Your task to perform on an android device: allow notifications from all sites in the chrome app Image 0: 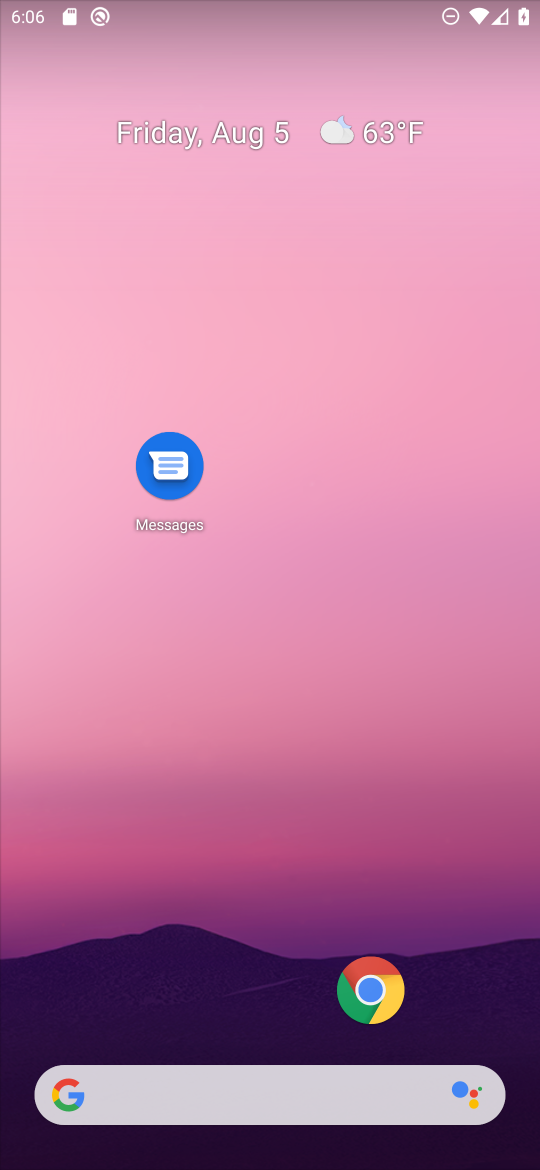
Step 0: click (362, 1003)
Your task to perform on an android device: allow notifications from all sites in the chrome app Image 1: 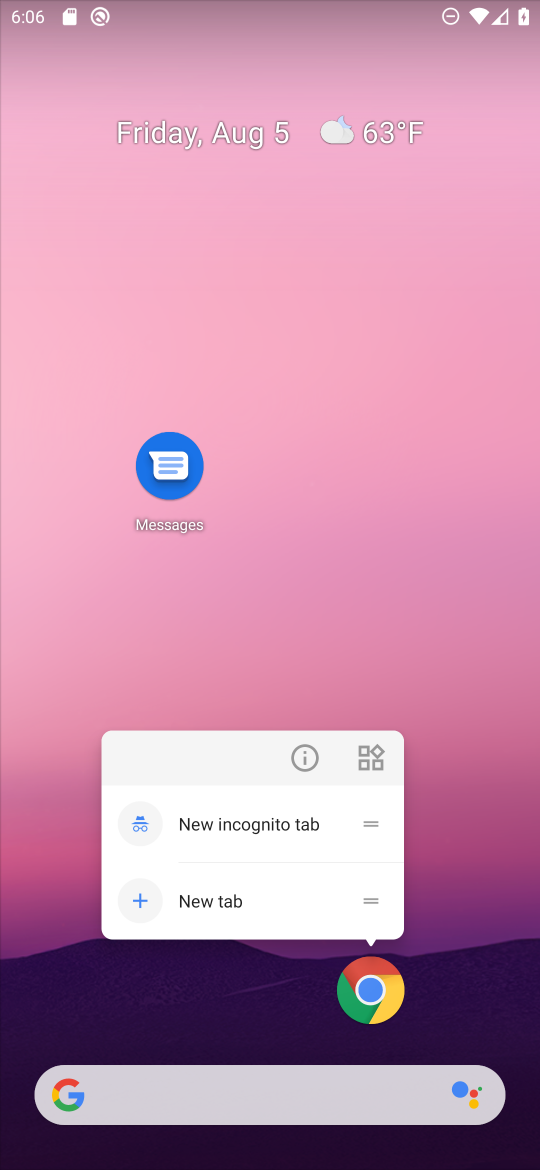
Step 1: click (367, 976)
Your task to perform on an android device: allow notifications from all sites in the chrome app Image 2: 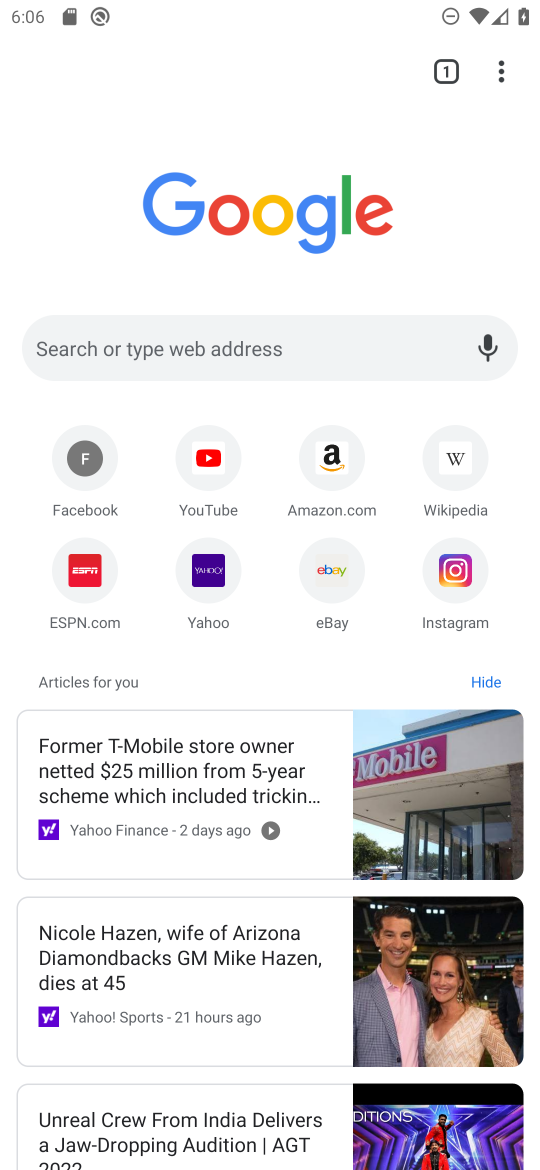
Step 2: click (512, 74)
Your task to perform on an android device: allow notifications from all sites in the chrome app Image 3: 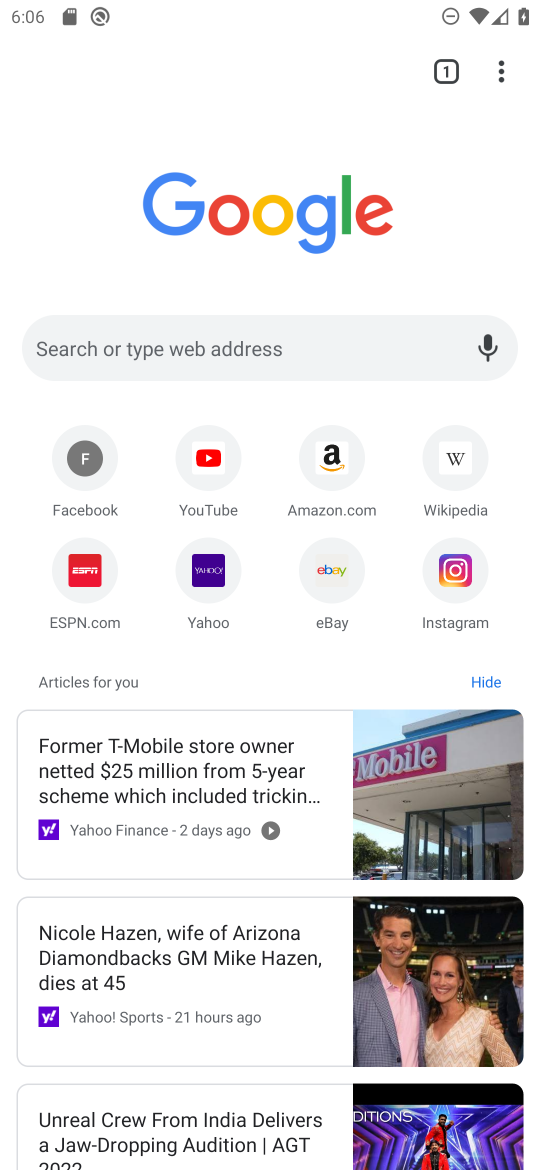
Step 3: click (499, 55)
Your task to perform on an android device: allow notifications from all sites in the chrome app Image 4: 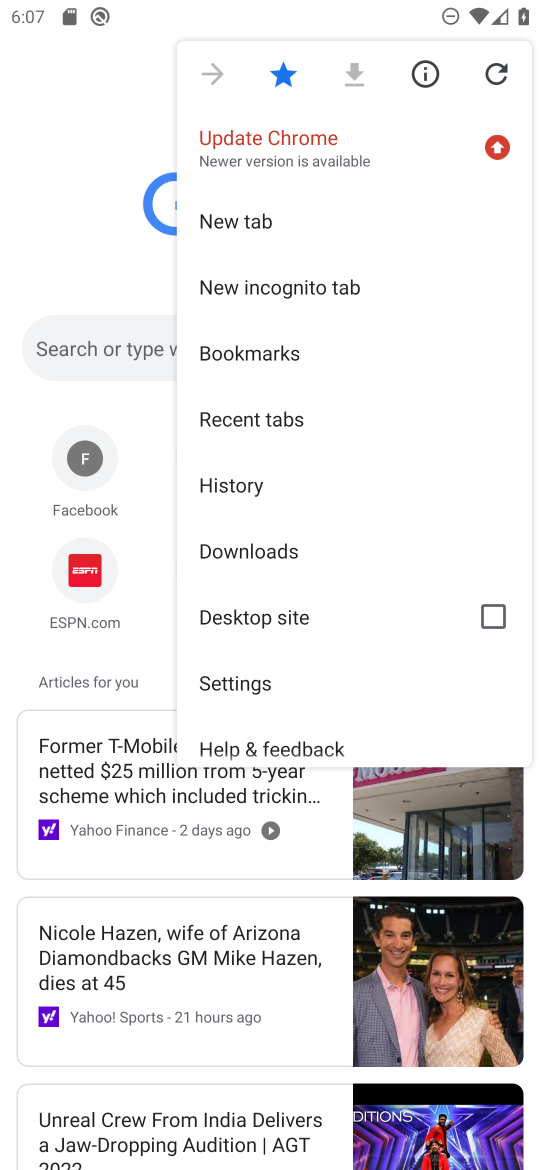
Step 4: click (266, 677)
Your task to perform on an android device: allow notifications from all sites in the chrome app Image 5: 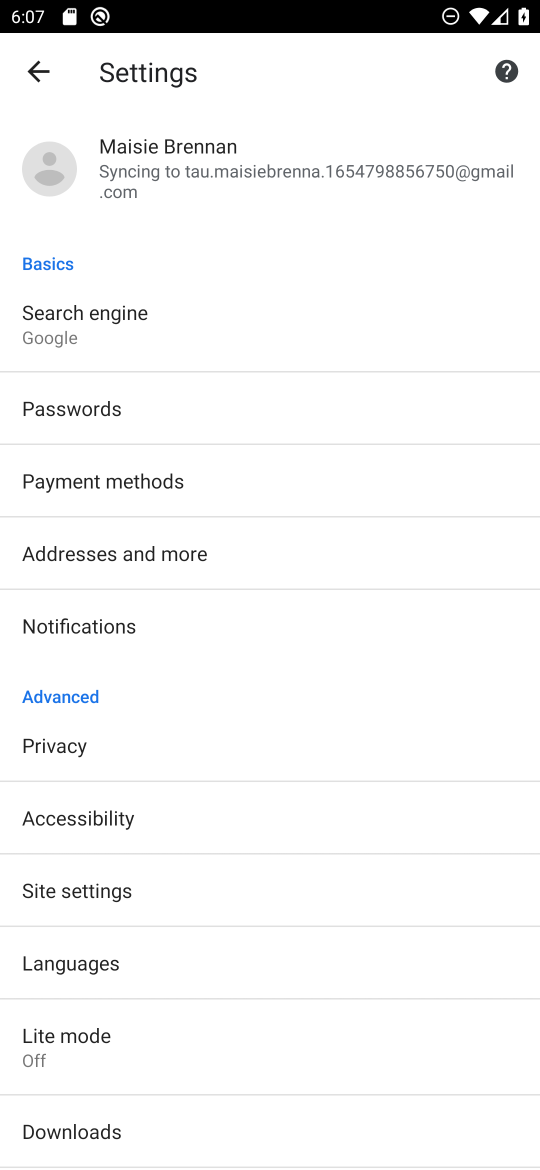
Step 5: click (82, 900)
Your task to perform on an android device: allow notifications from all sites in the chrome app Image 6: 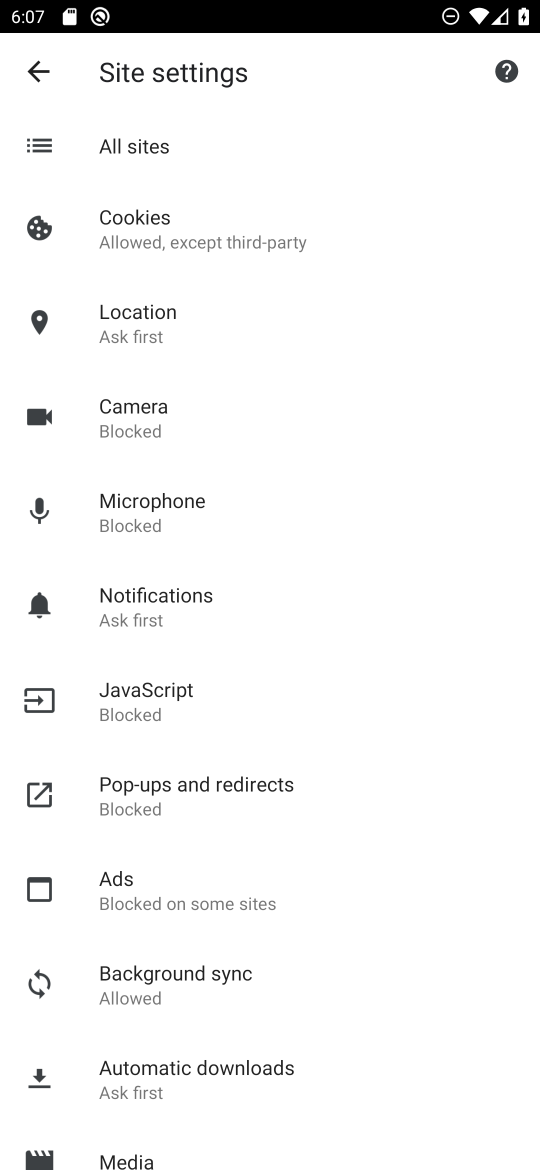
Step 6: click (142, 596)
Your task to perform on an android device: allow notifications from all sites in the chrome app Image 7: 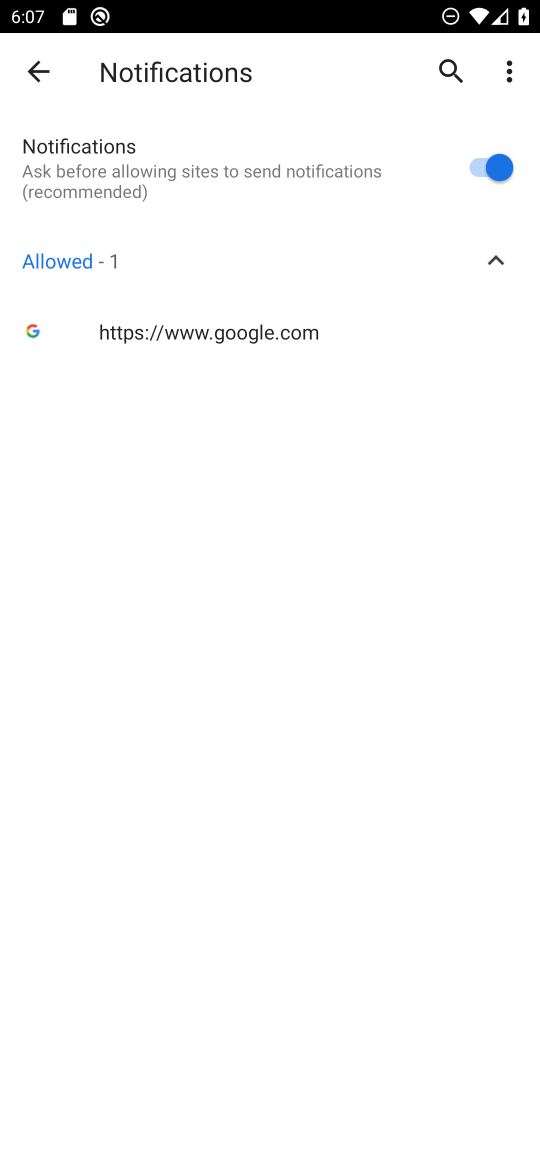
Step 7: task complete